Your task to perform on an android device: turn off translation in the chrome app Image 0: 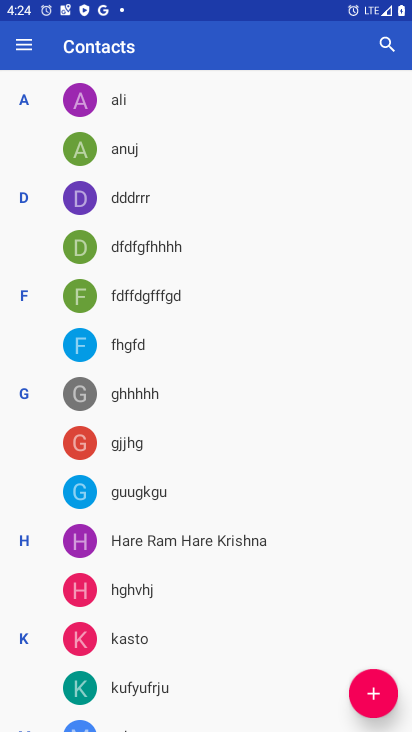
Step 0: press home button
Your task to perform on an android device: turn off translation in the chrome app Image 1: 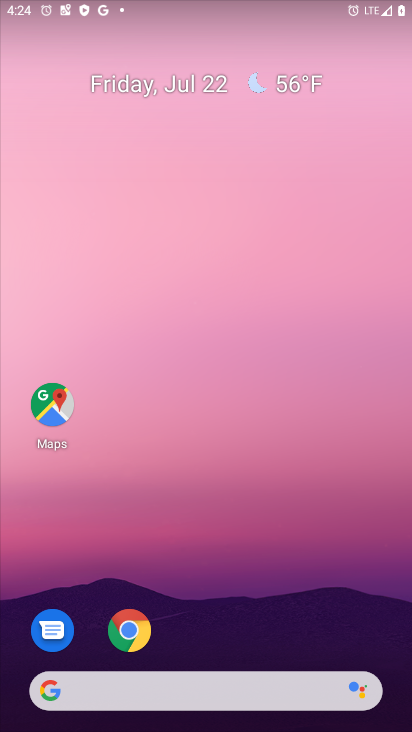
Step 1: click (127, 623)
Your task to perform on an android device: turn off translation in the chrome app Image 2: 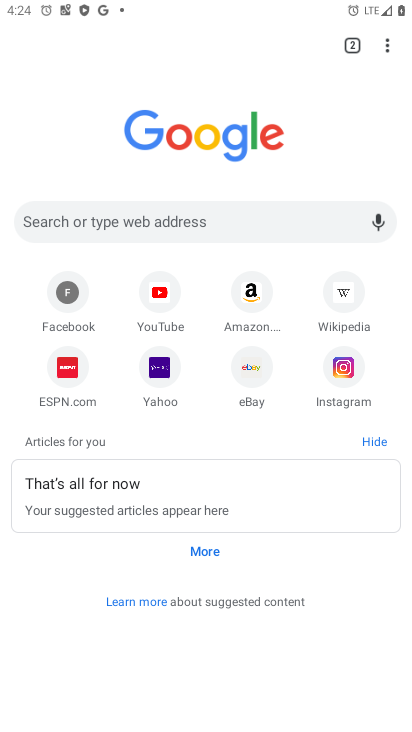
Step 2: drag from (385, 44) to (230, 386)
Your task to perform on an android device: turn off translation in the chrome app Image 3: 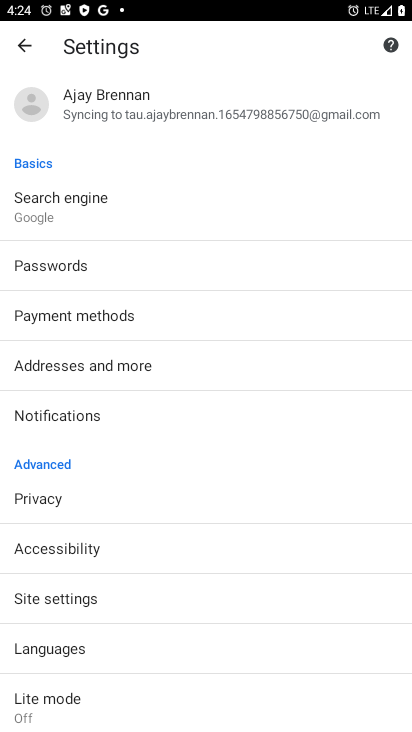
Step 3: click (81, 657)
Your task to perform on an android device: turn off translation in the chrome app Image 4: 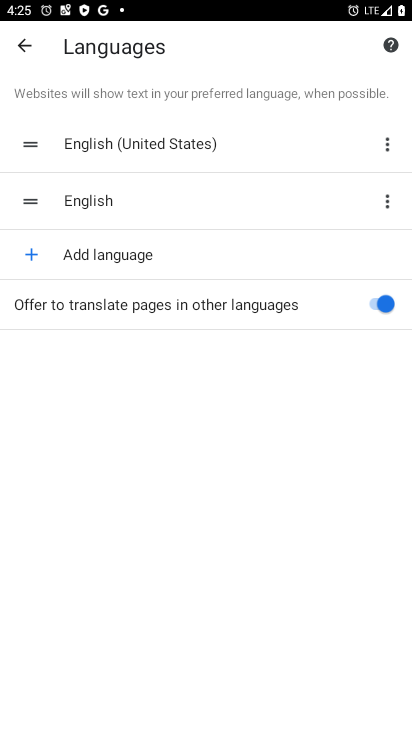
Step 4: click (370, 303)
Your task to perform on an android device: turn off translation in the chrome app Image 5: 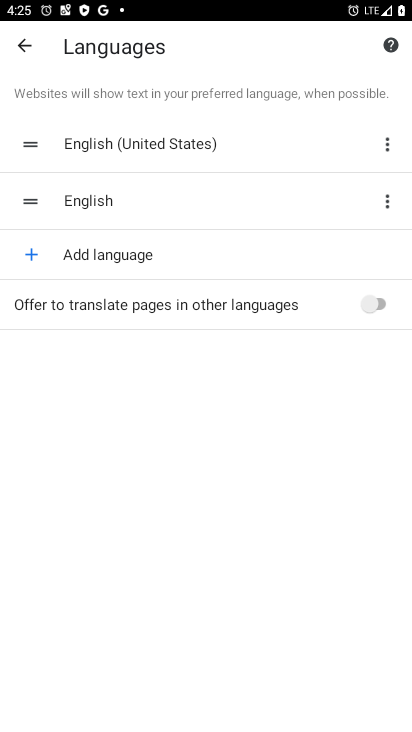
Step 5: task complete